Your task to perform on an android device: Open Google Chrome Image 0: 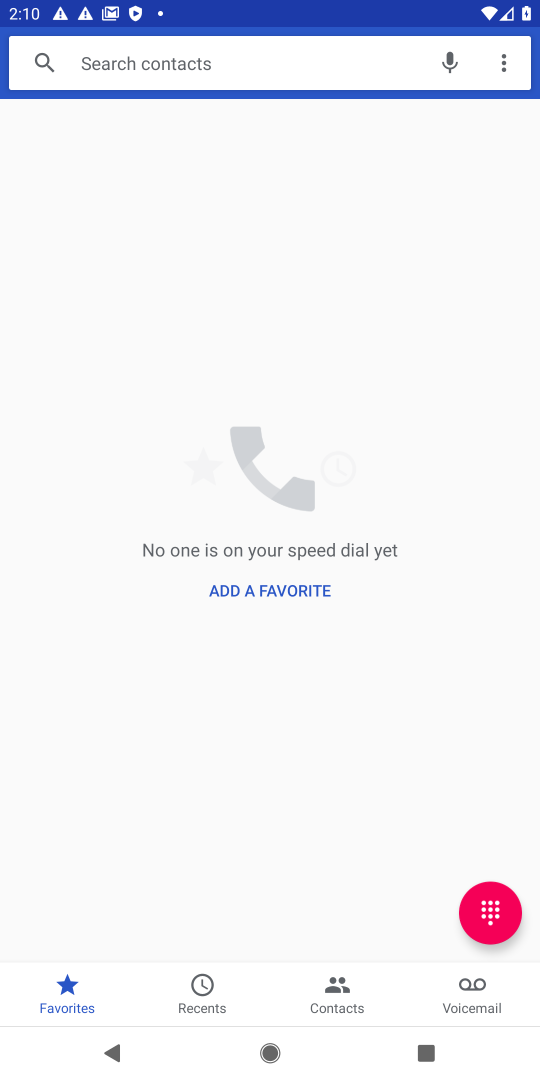
Step 0: press home button
Your task to perform on an android device: Open Google Chrome Image 1: 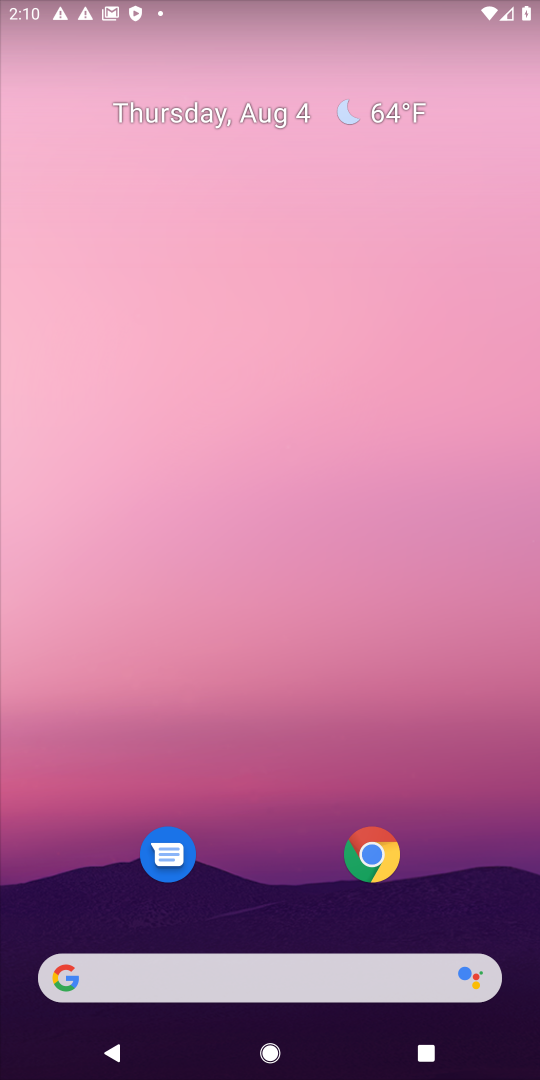
Step 1: click (379, 852)
Your task to perform on an android device: Open Google Chrome Image 2: 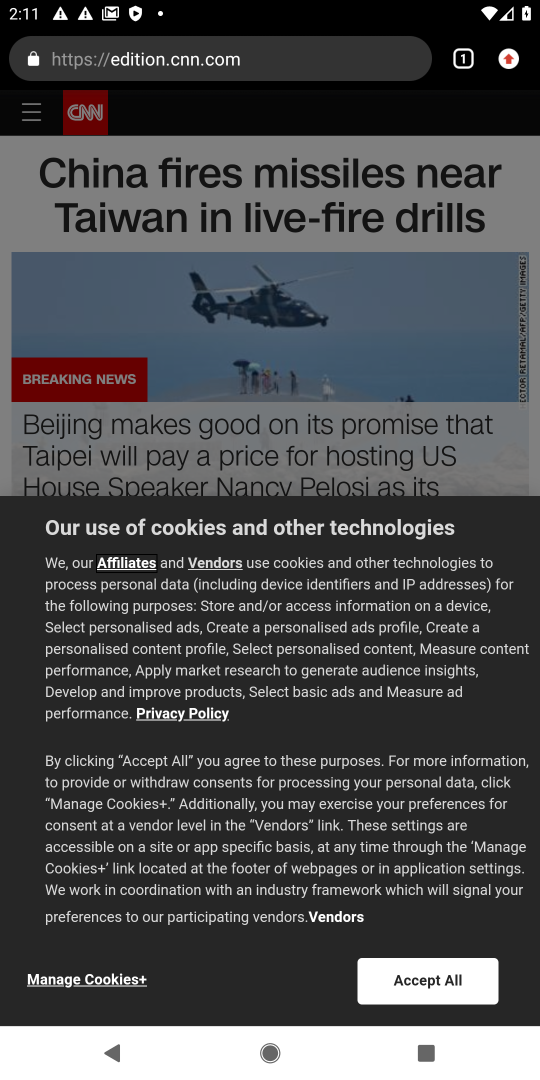
Step 2: task complete